Your task to perform on an android device: Open accessibility settings Image 0: 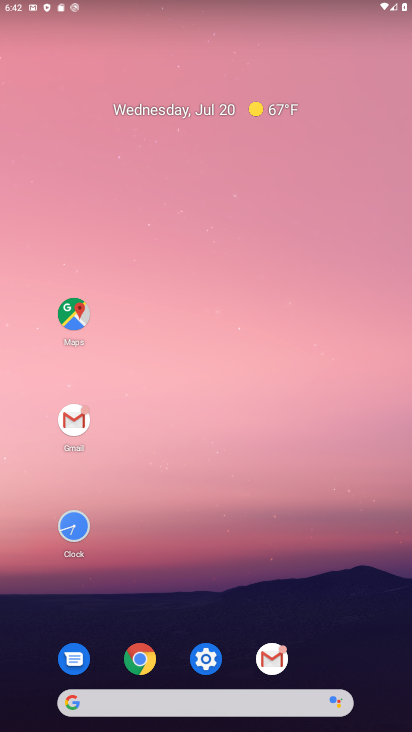
Step 0: click (208, 655)
Your task to perform on an android device: Open accessibility settings Image 1: 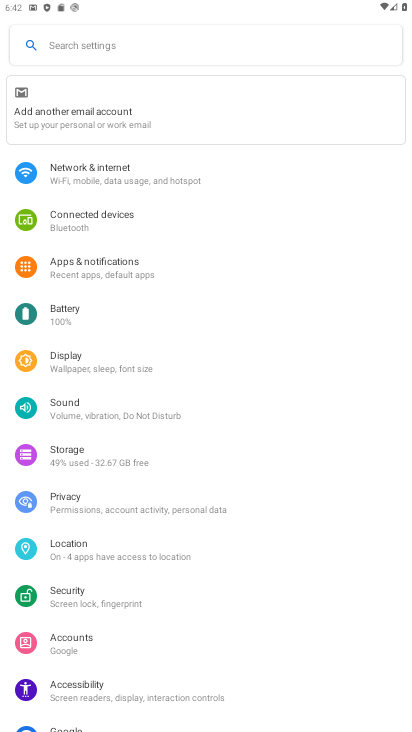
Step 1: click (75, 682)
Your task to perform on an android device: Open accessibility settings Image 2: 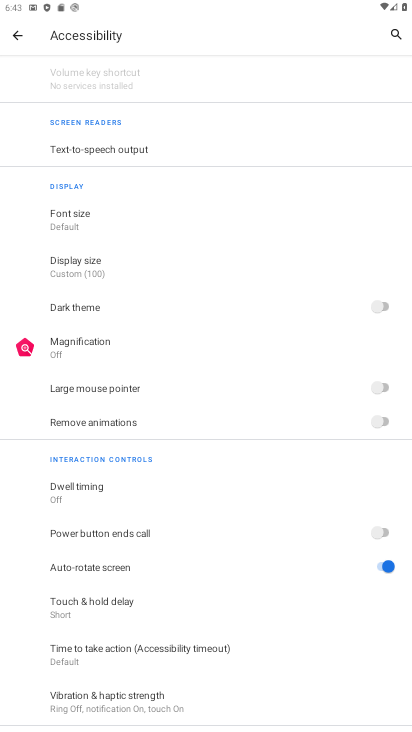
Step 2: task complete